Your task to perform on an android device: move a message to another label in the gmail app Image 0: 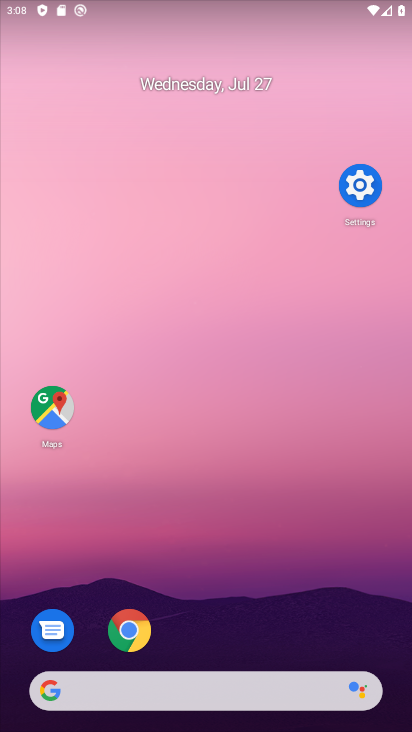
Step 0: drag from (229, 613) to (262, 276)
Your task to perform on an android device: move a message to another label in the gmail app Image 1: 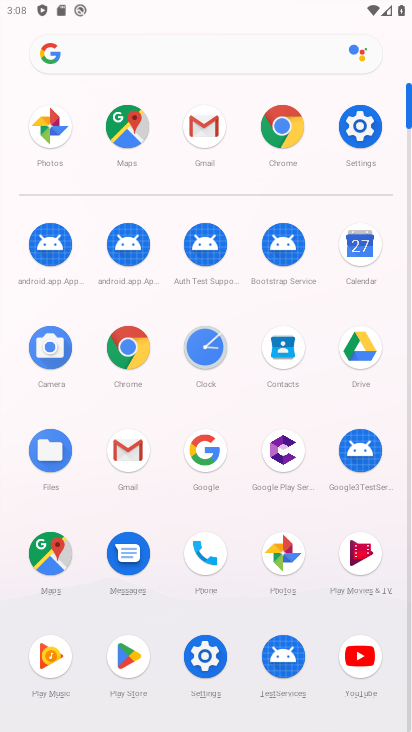
Step 1: click (211, 127)
Your task to perform on an android device: move a message to another label in the gmail app Image 2: 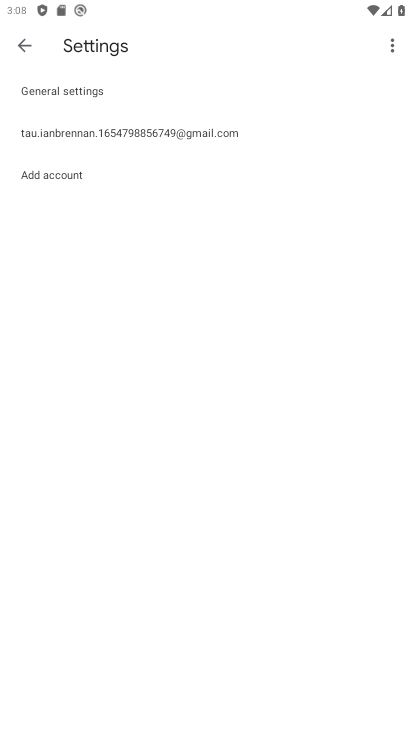
Step 2: click (19, 46)
Your task to perform on an android device: move a message to another label in the gmail app Image 3: 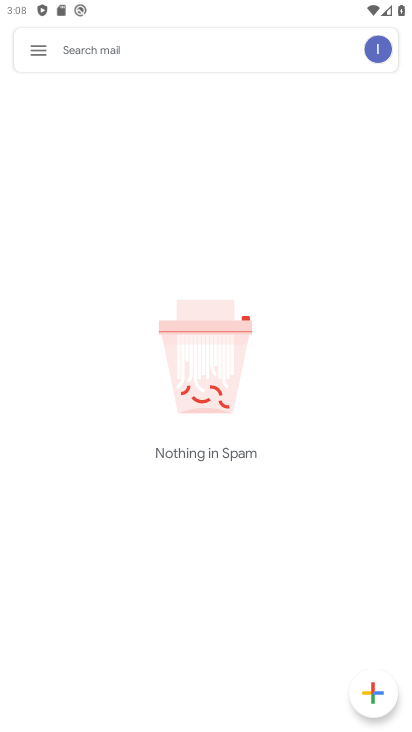
Step 3: click (39, 54)
Your task to perform on an android device: move a message to another label in the gmail app Image 4: 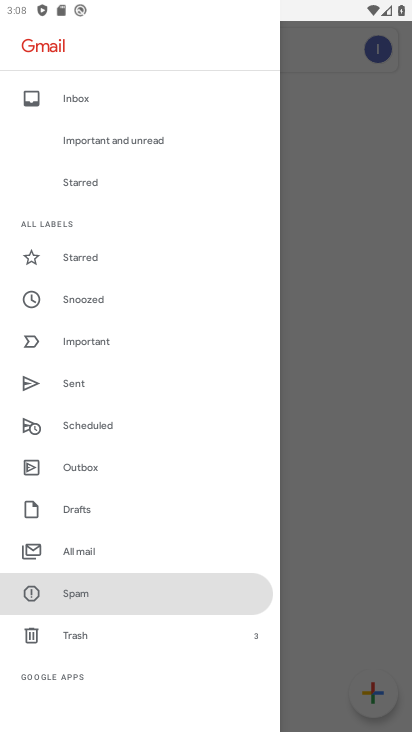
Step 4: click (95, 549)
Your task to perform on an android device: move a message to another label in the gmail app Image 5: 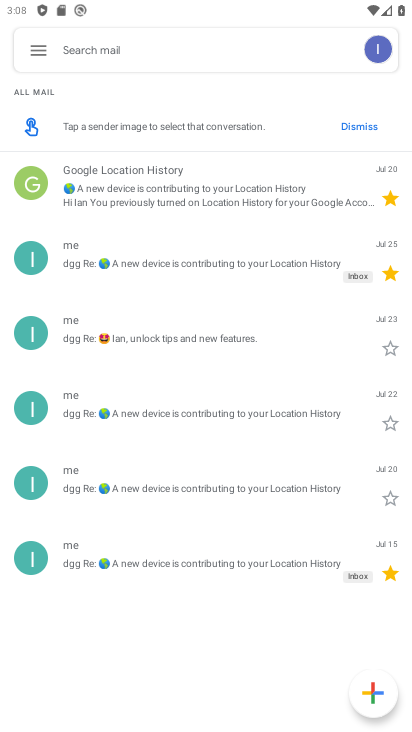
Step 5: click (150, 194)
Your task to perform on an android device: move a message to another label in the gmail app Image 6: 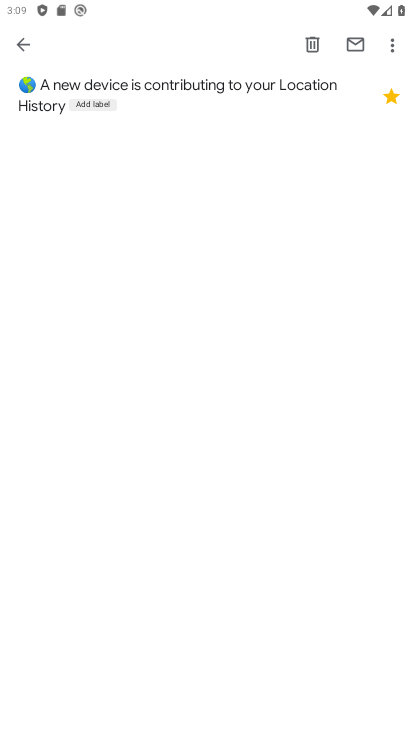
Step 6: click (390, 44)
Your task to perform on an android device: move a message to another label in the gmail app Image 7: 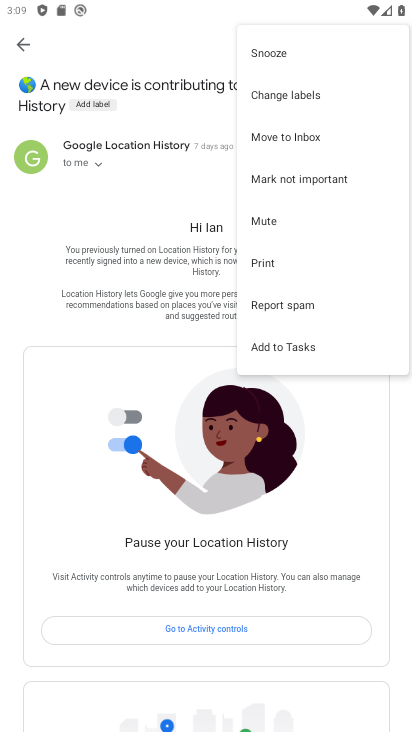
Step 7: click (298, 95)
Your task to perform on an android device: move a message to another label in the gmail app Image 8: 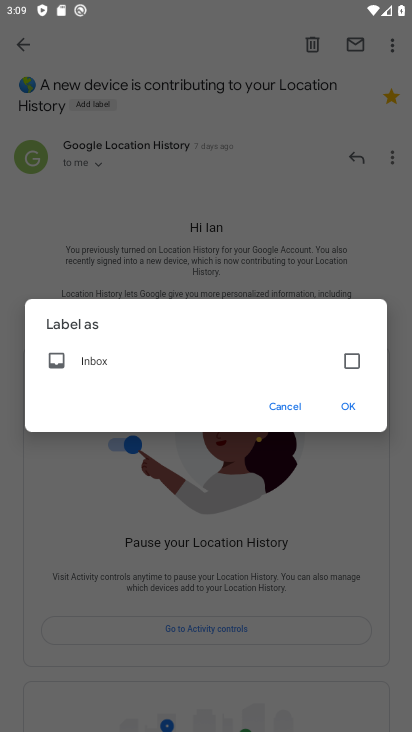
Step 8: click (353, 361)
Your task to perform on an android device: move a message to another label in the gmail app Image 9: 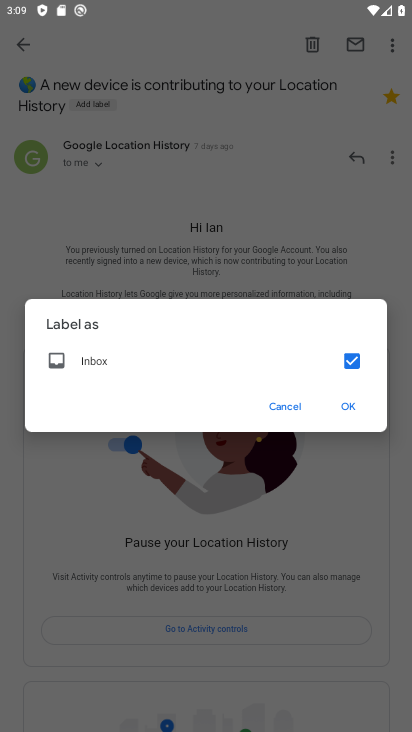
Step 9: click (346, 406)
Your task to perform on an android device: move a message to another label in the gmail app Image 10: 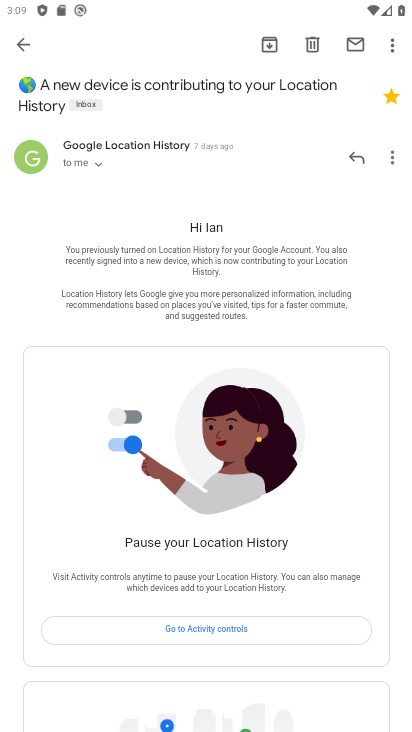
Step 10: task complete